Your task to perform on an android device: Open Reddit.com Image 0: 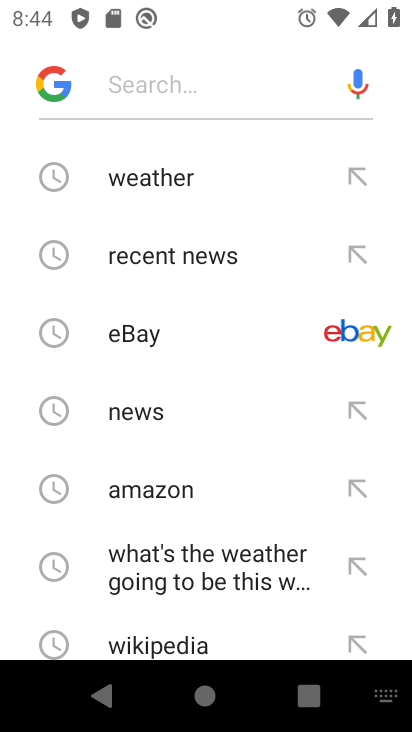
Step 0: press home button
Your task to perform on an android device: Open Reddit.com Image 1: 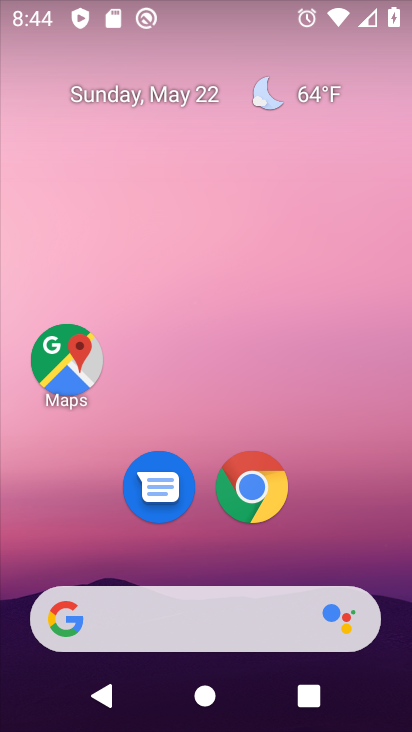
Step 1: click (265, 467)
Your task to perform on an android device: Open Reddit.com Image 2: 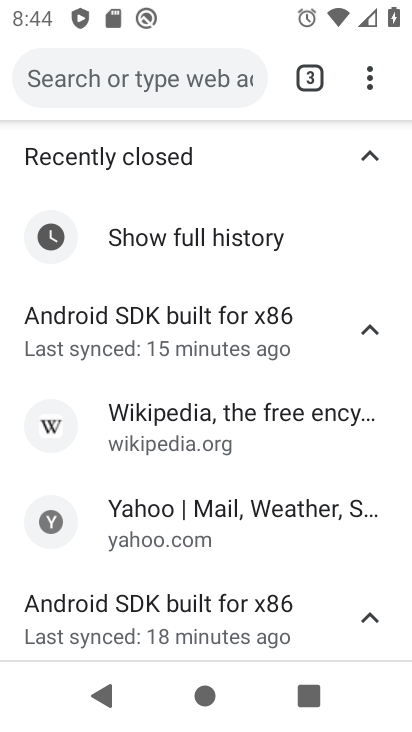
Step 2: click (304, 80)
Your task to perform on an android device: Open Reddit.com Image 3: 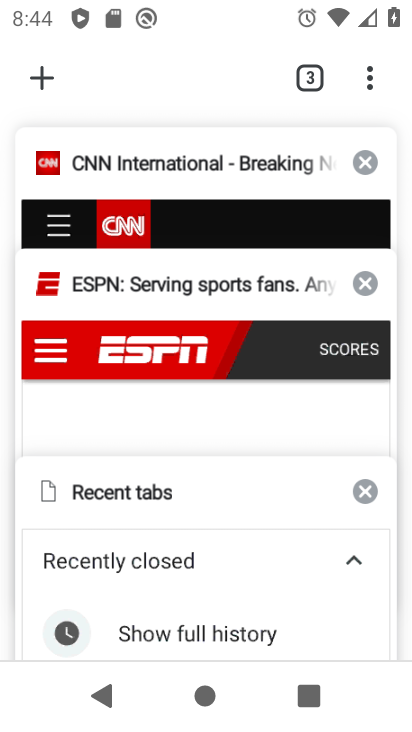
Step 3: click (33, 73)
Your task to perform on an android device: Open Reddit.com Image 4: 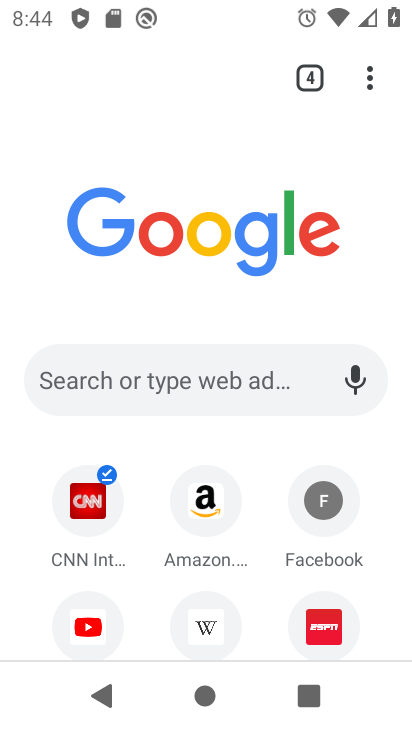
Step 4: click (196, 359)
Your task to perform on an android device: Open Reddit.com Image 5: 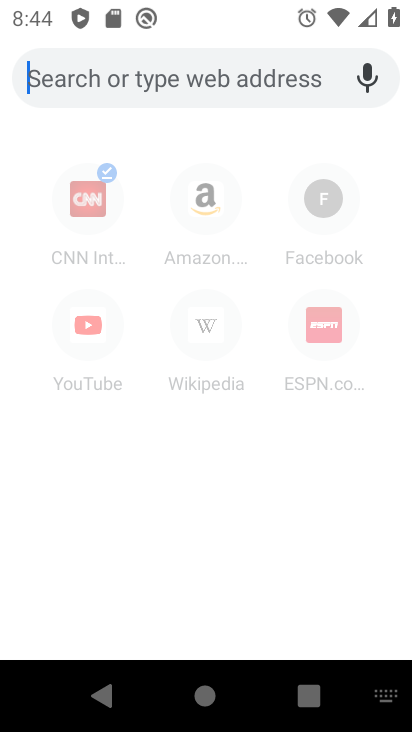
Step 5: type "reddit.com"
Your task to perform on an android device: Open Reddit.com Image 6: 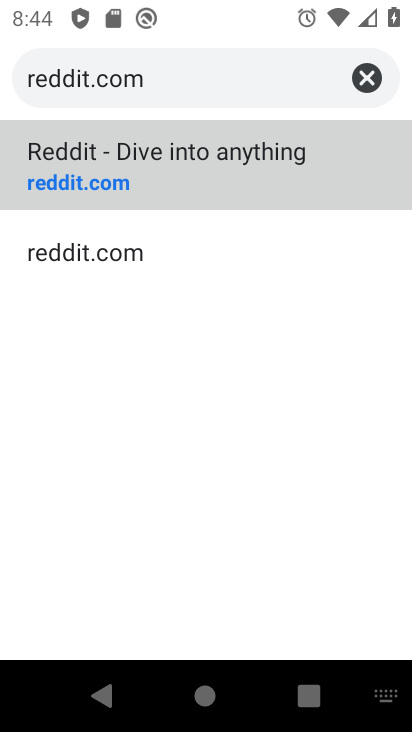
Step 6: click (227, 178)
Your task to perform on an android device: Open Reddit.com Image 7: 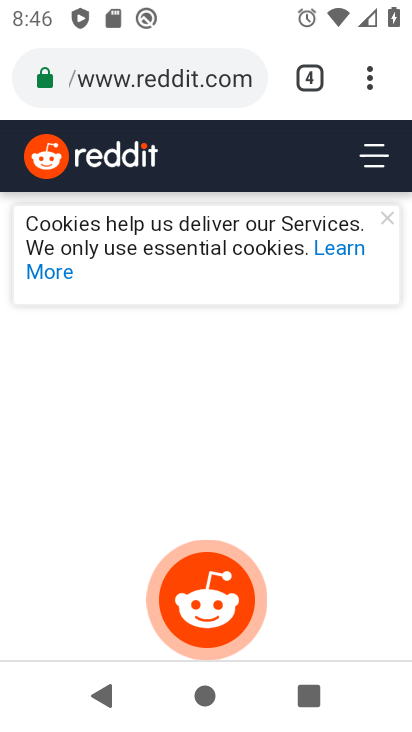
Step 7: task complete